Your task to perform on an android device: manage bookmarks in the chrome app Image 0: 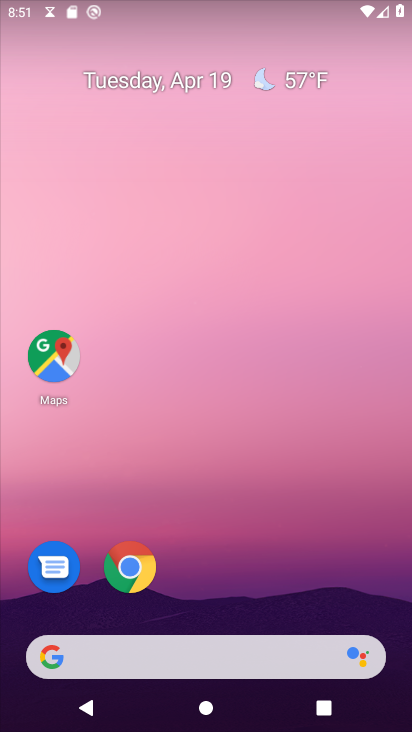
Step 0: drag from (328, 574) to (384, 54)
Your task to perform on an android device: manage bookmarks in the chrome app Image 1: 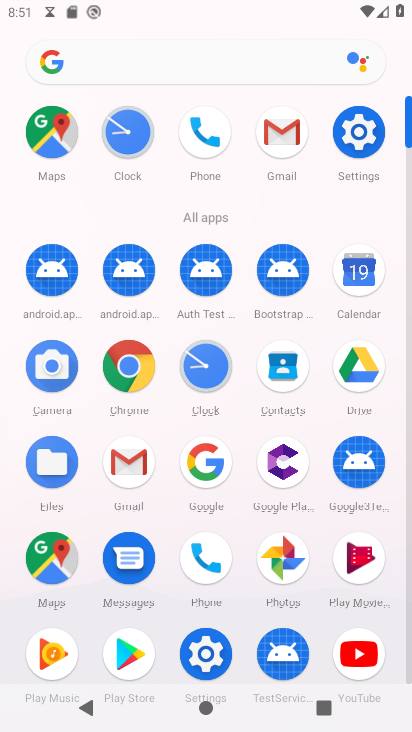
Step 1: click (125, 368)
Your task to perform on an android device: manage bookmarks in the chrome app Image 2: 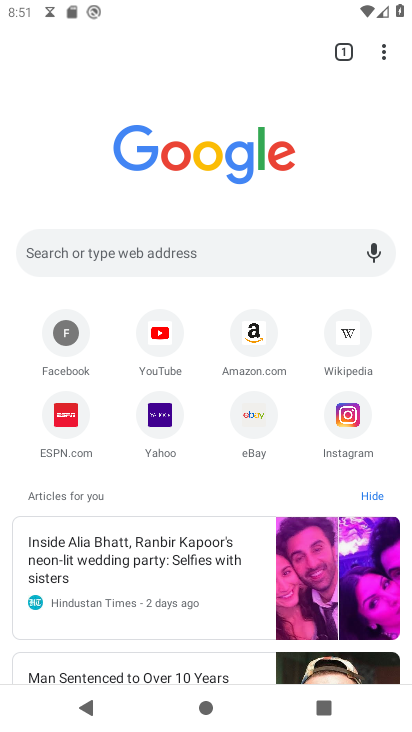
Step 2: task complete